Your task to perform on an android device: Do I have any events this weekend? Image 0: 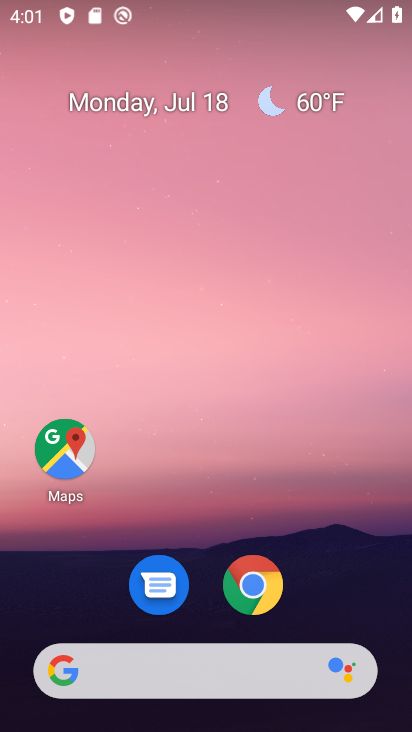
Step 0: drag from (303, 59) to (310, 0)
Your task to perform on an android device: Do I have any events this weekend? Image 1: 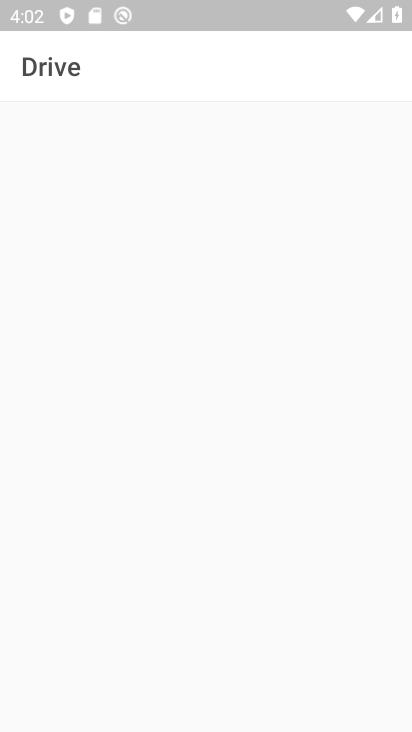
Step 1: press home button
Your task to perform on an android device: Do I have any events this weekend? Image 2: 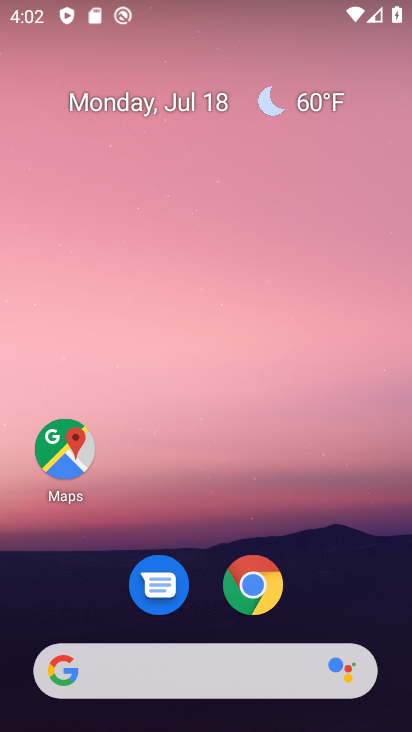
Step 2: drag from (318, 477) to (299, 51)
Your task to perform on an android device: Do I have any events this weekend? Image 3: 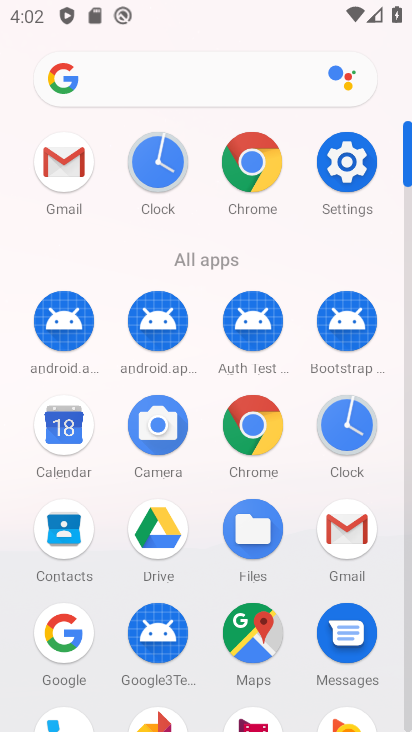
Step 3: click (59, 424)
Your task to perform on an android device: Do I have any events this weekend? Image 4: 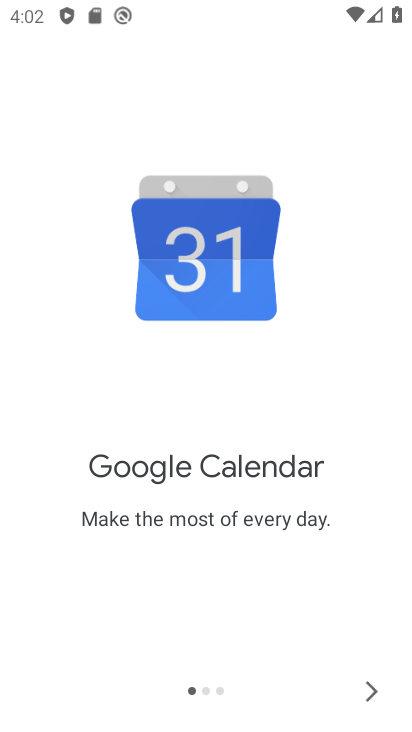
Step 4: click (369, 686)
Your task to perform on an android device: Do I have any events this weekend? Image 5: 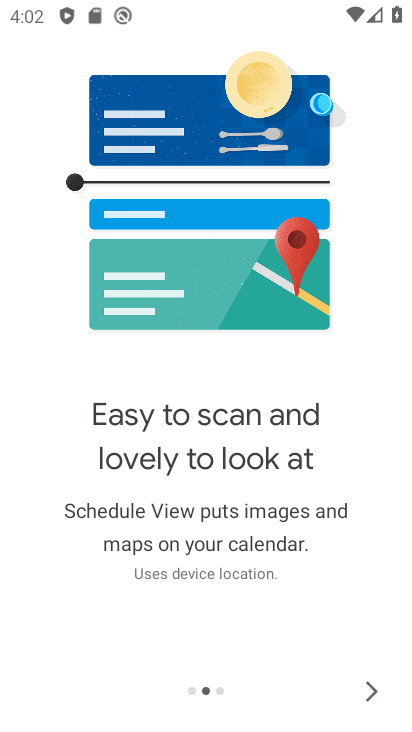
Step 5: click (369, 686)
Your task to perform on an android device: Do I have any events this weekend? Image 6: 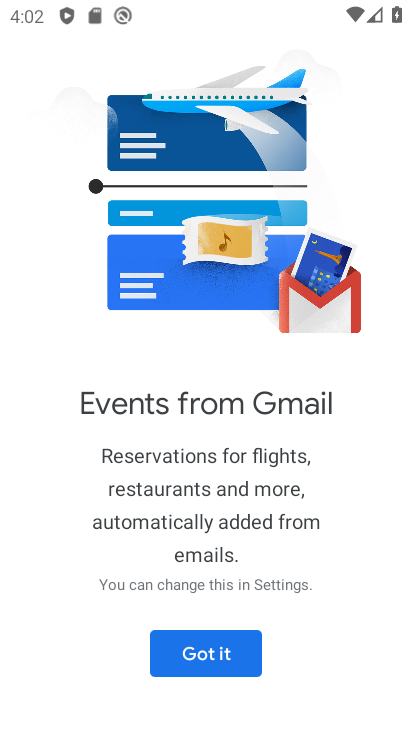
Step 6: click (250, 651)
Your task to perform on an android device: Do I have any events this weekend? Image 7: 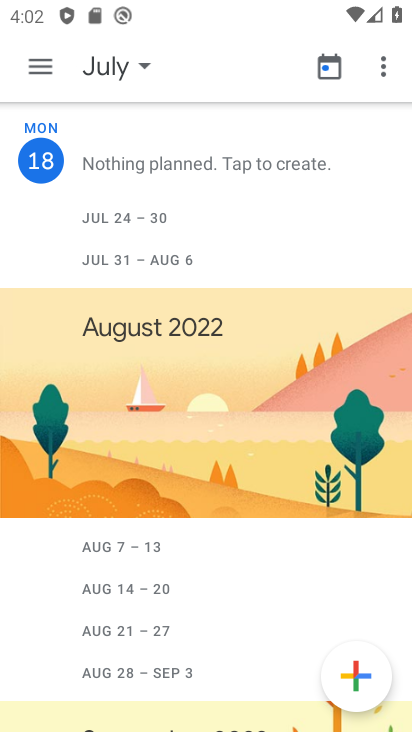
Step 7: click (38, 59)
Your task to perform on an android device: Do I have any events this weekend? Image 8: 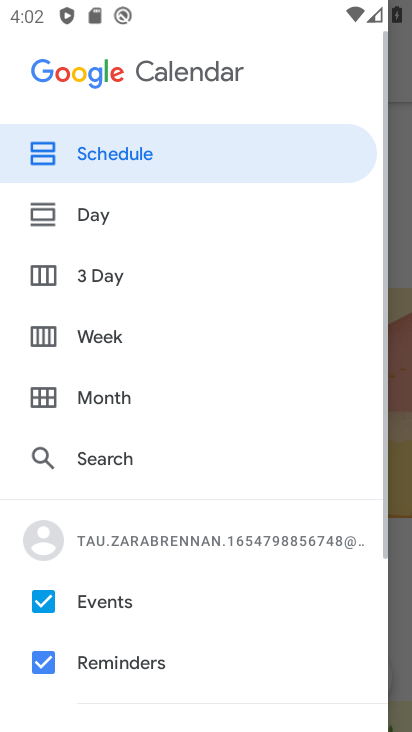
Step 8: click (39, 338)
Your task to perform on an android device: Do I have any events this weekend? Image 9: 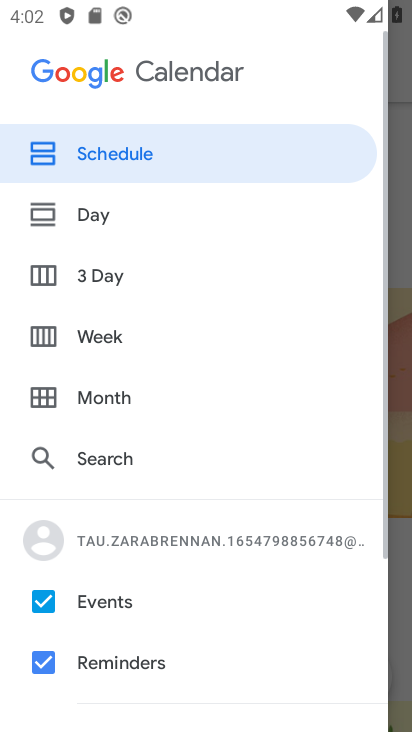
Step 9: click (44, 325)
Your task to perform on an android device: Do I have any events this weekend? Image 10: 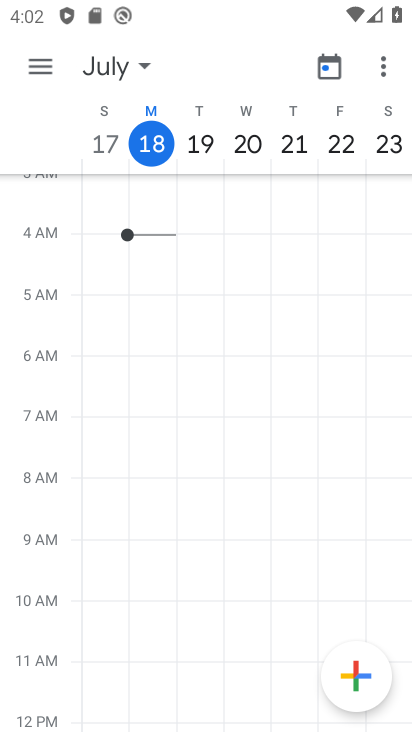
Step 10: click (391, 120)
Your task to perform on an android device: Do I have any events this weekend? Image 11: 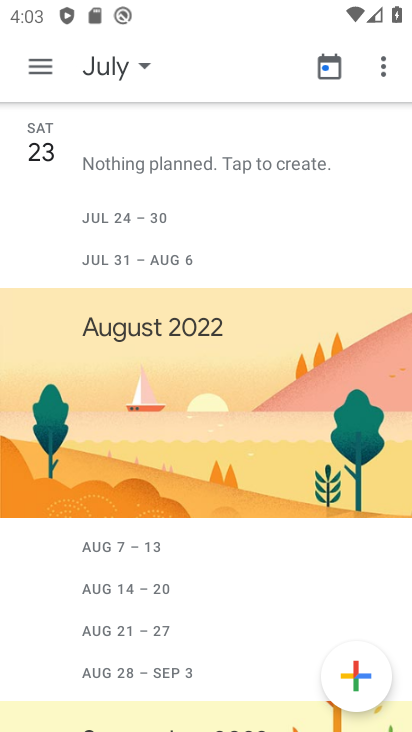
Step 11: task complete